Your task to perform on an android device: see tabs open on other devices in the chrome app Image 0: 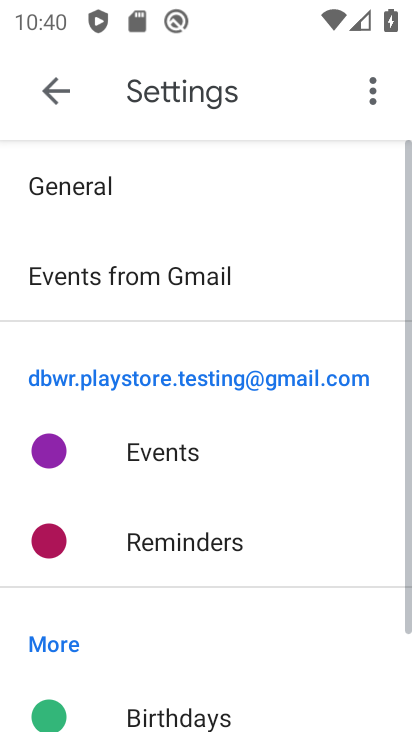
Step 0: drag from (258, 688) to (218, 296)
Your task to perform on an android device: see tabs open on other devices in the chrome app Image 1: 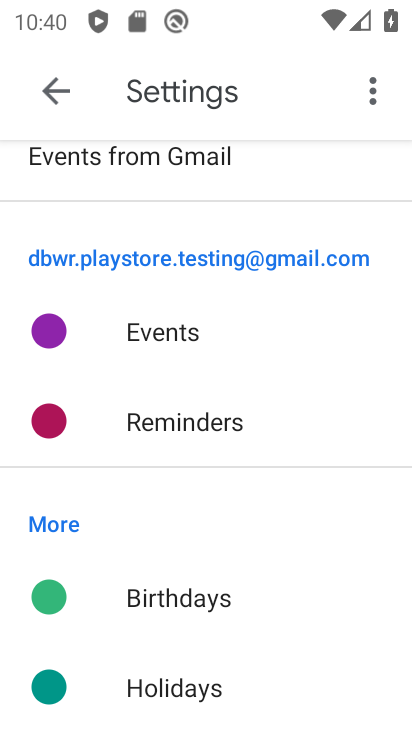
Step 1: press back button
Your task to perform on an android device: see tabs open on other devices in the chrome app Image 2: 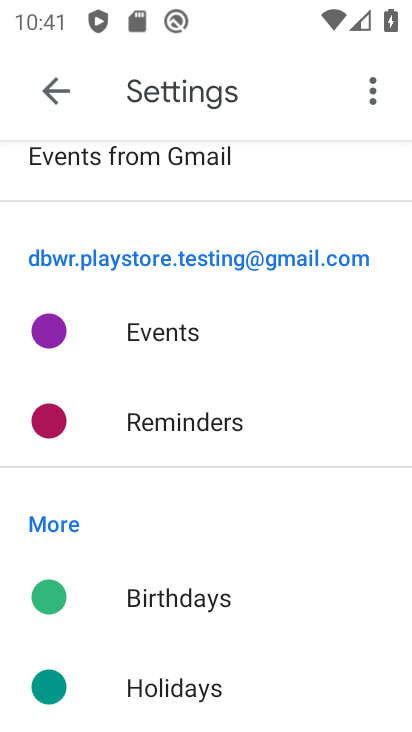
Step 2: press back button
Your task to perform on an android device: see tabs open on other devices in the chrome app Image 3: 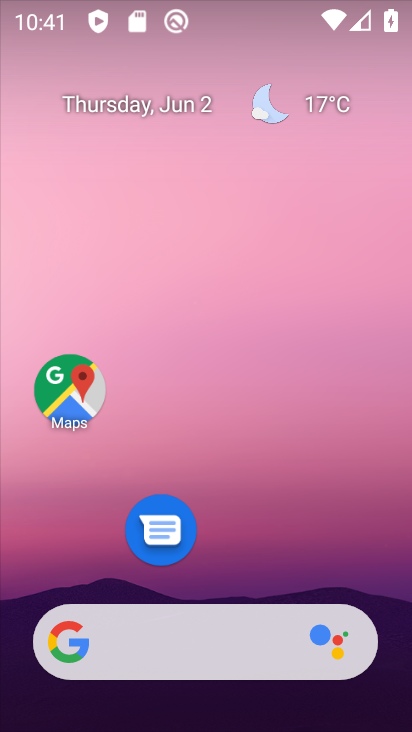
Step 3: press back button
Your task to perform on an android device: see tabs open on other devices in the chrome app Image 4: 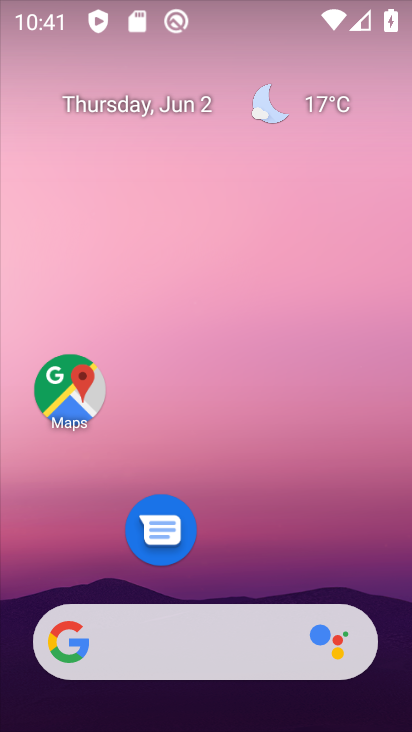
Step 4: press home button
Your task to perform on an android device: see tabs open on other devices in the chrome app Image 5: 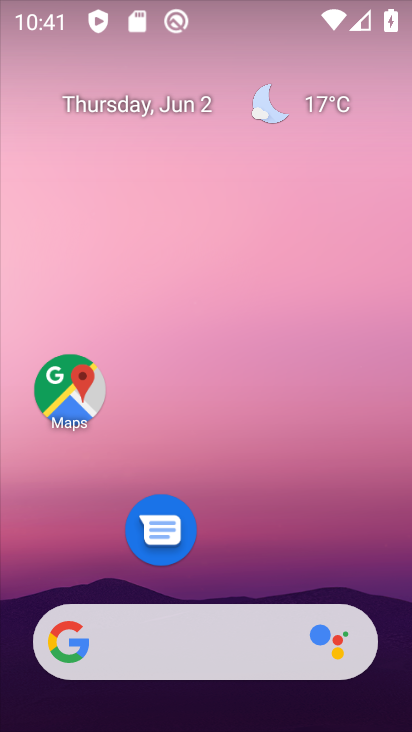
Step 5: press home button
Your task to perform on an android device: see tabs open on other devices in the chrome app Image 6: 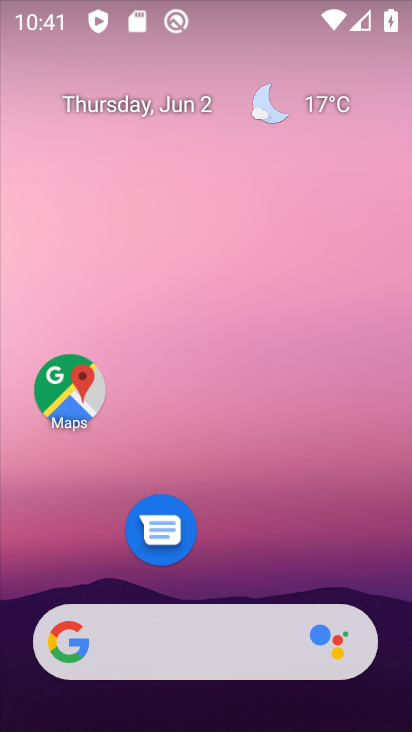
Step 6: drag from (241, 562) to (195, 162)
Your task to perform on an android device: see tabs open on other devices in the chrome app Image 7: 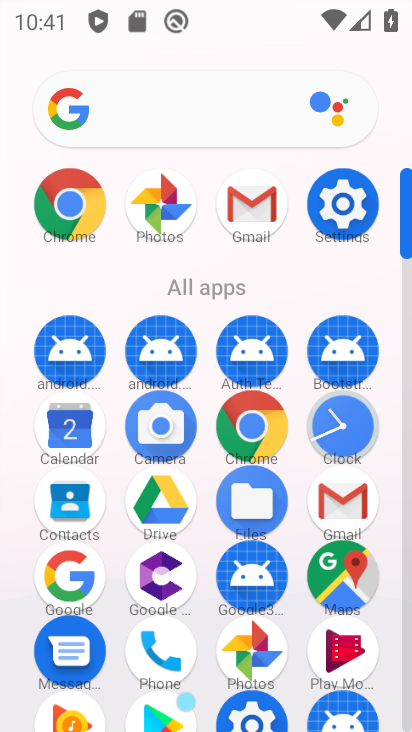
Step 7: click (61, 211)
Your task to perform on an android device: see tabs open on other devices in the chrome app Image 8: 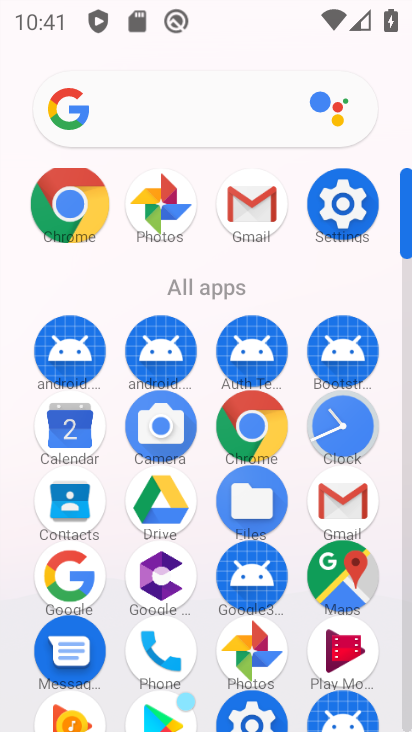
Step 8: click (61, 208)
Your task to perform on an android device: see tabs open on other devices in the chrome app Image 9: 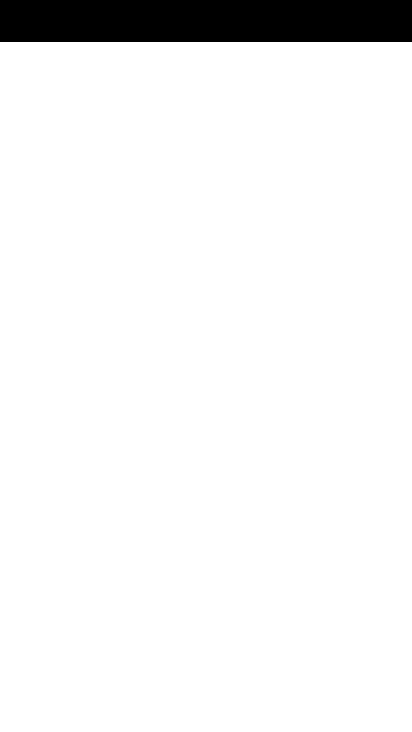
Step 9: click (61, 208)
Your task to perform on an android device: see tabs open on other devices in the chrome app Image 10: 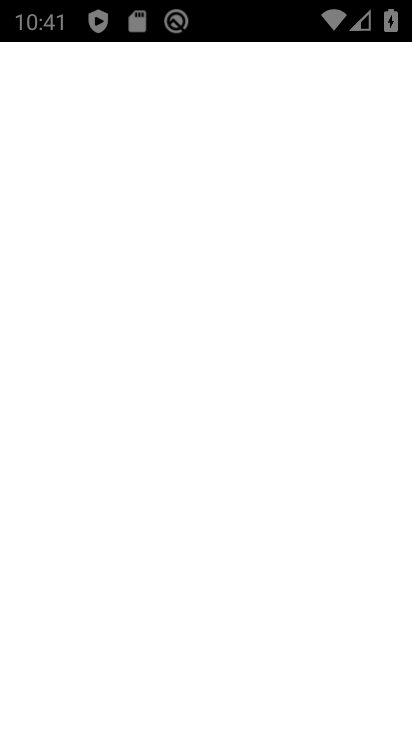
Step 10: click (61, 208)
Your task to perform on an android device: see tabs open on other devices in the chrome app Image 11: 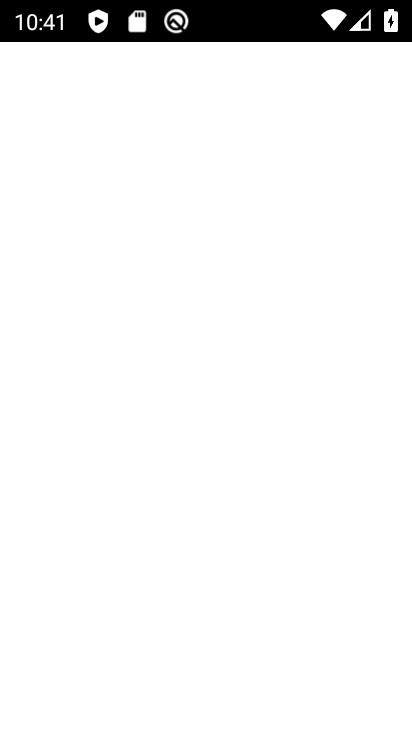
Step 11: click (61, 208)
Your task to perform on an android device: see tabs open on other devices in the chrome app Image 12: 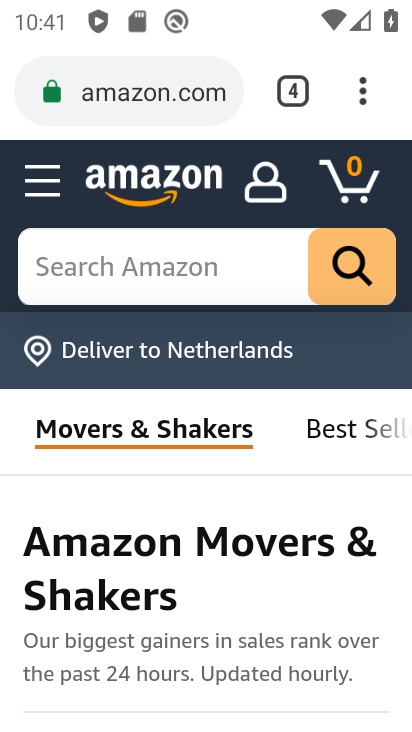
Step 12: drag from (365, 85) to (84, 428)
Your task to perform on an android device: see tabs open on other devices in the chrome app Image 13: 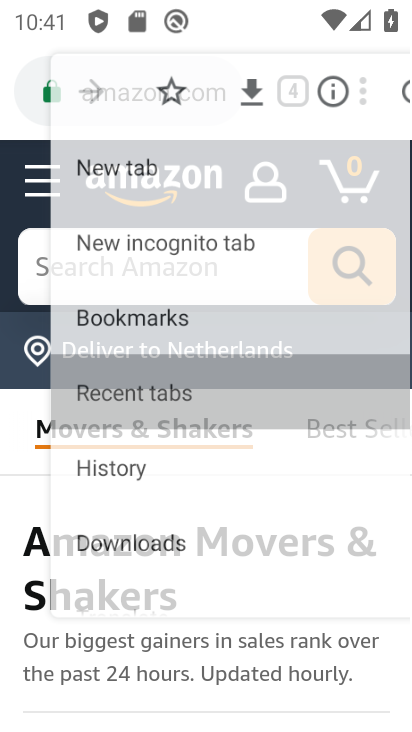
Step 13: click (84, 429)
Your task to perform on an android device: see tabs open on other devices in the chrome app Image 14: 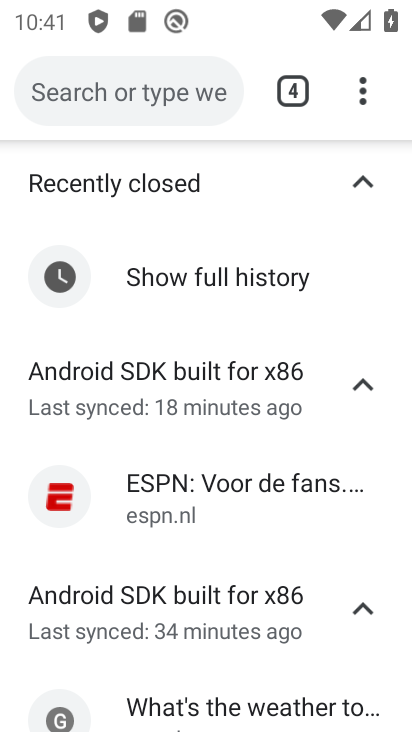
Step 14: task complete